Your task to perform on an android device: Open maps Image 0: 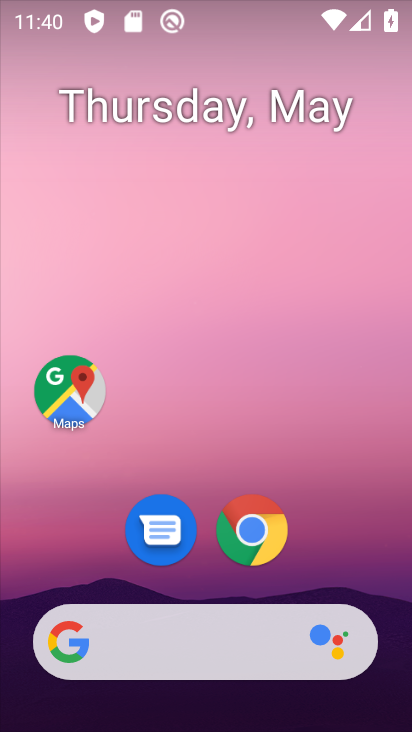
Step 0: click (62, 399)
Your task to perform on an android device: Open maps Image 1: 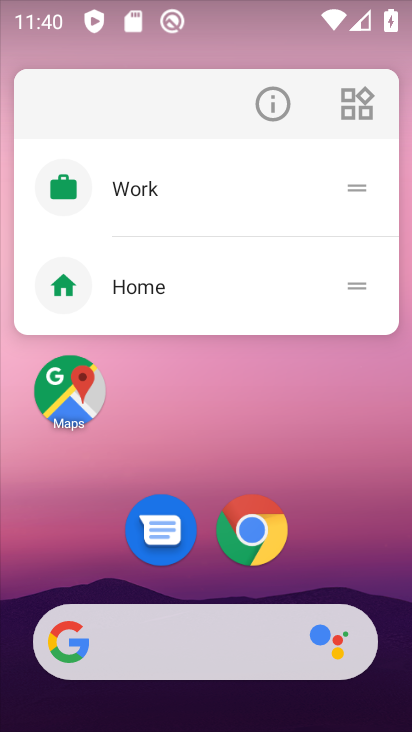
Step 1: click (86, 394)
Your task to perform on an android device: Open maps Image 2: 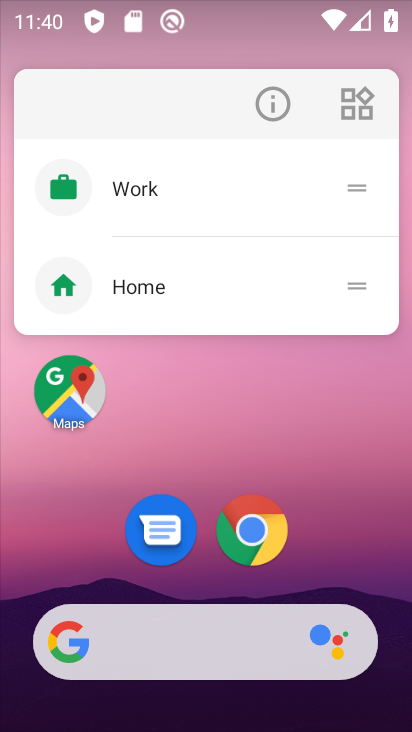
Step 2: click (67, 381)
Your task to perform on an android device: Open maps Image 3: 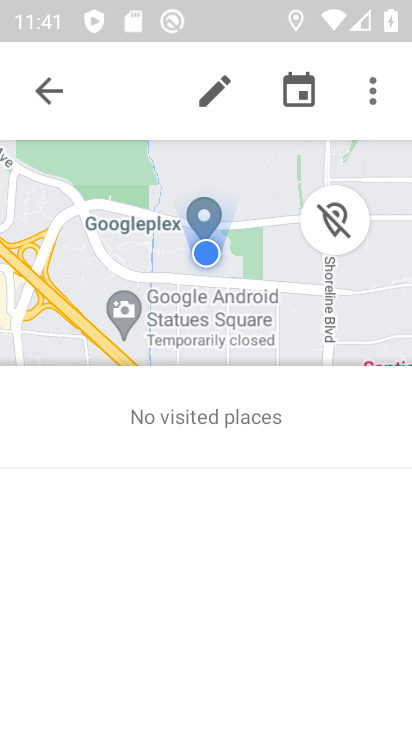
Step 3: task complete